Your task to perform on an android device: Open Google Chrome and click the shortcut for Amazon.com Image 0: 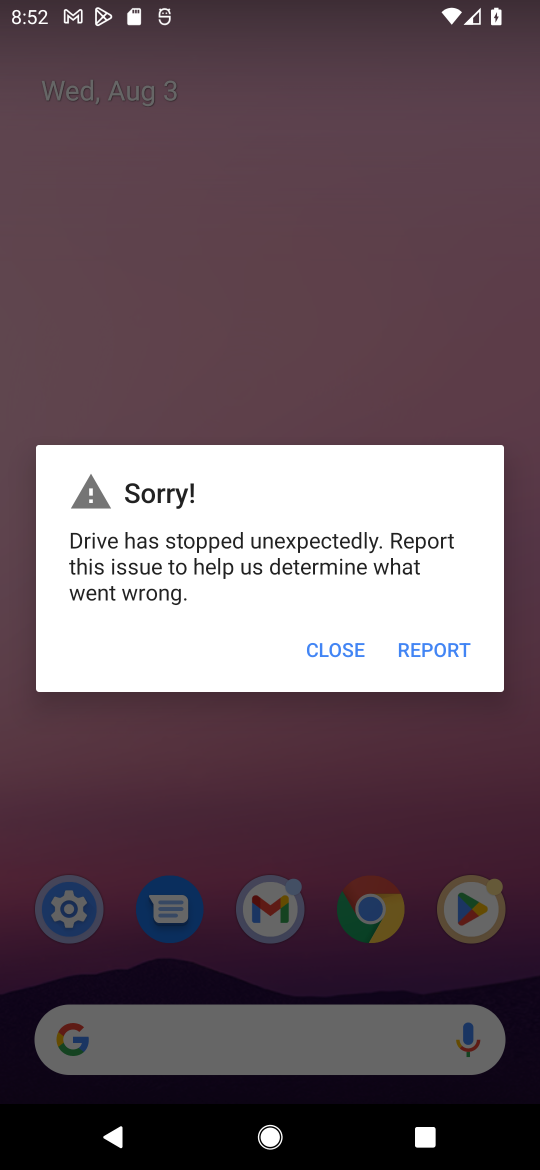
Step 0: press home button
Your task to perform on an android device: Open Google Chrome and click the shortcut for Amazon.com Image 1: 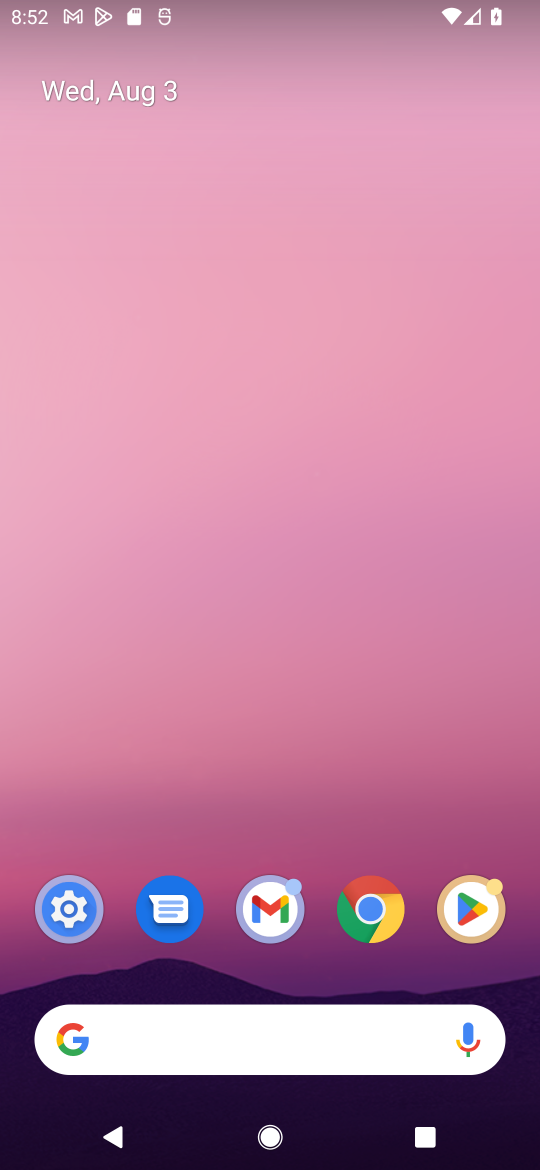
Step 1: drag from (424, 785) to (410, 248)
Your task to perform on an android device: Open Google Chrome and click the shortcut for Amazon.com Image 2: 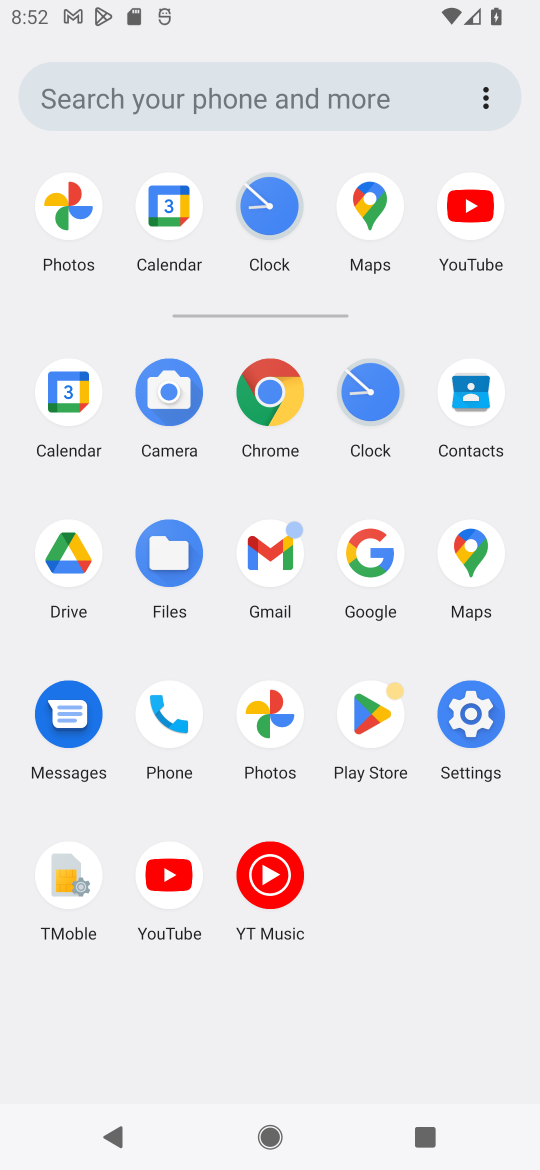
Step 2: click (277, 404)
Your task to perform on an android device: Open Google Chrome and click the shortcut for Amazon.com Image 3: 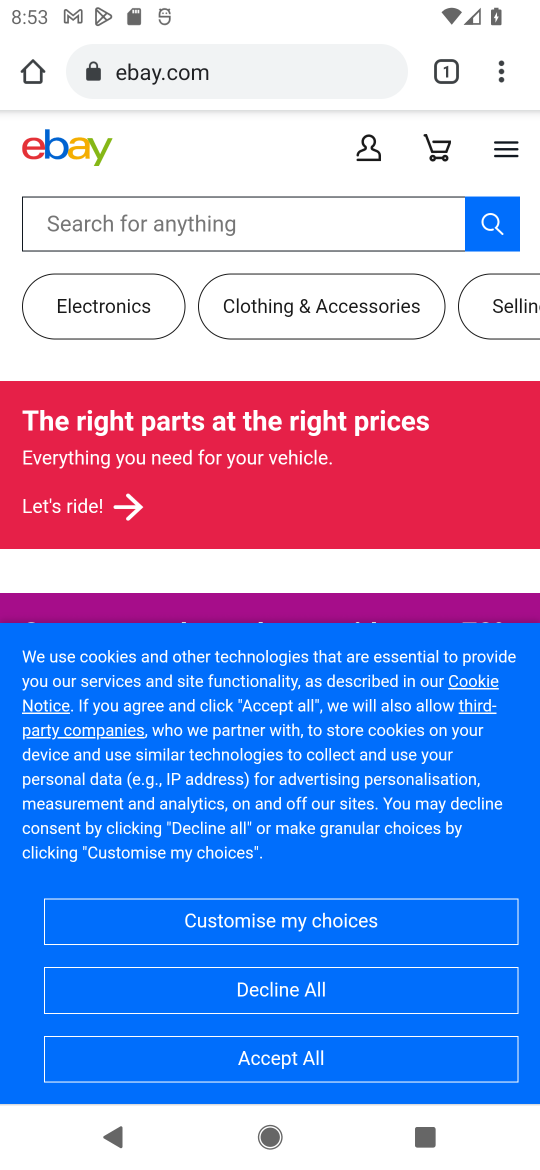
Step 3: press back button
Your task to perform on an android device: Open Google Chrome and click the shortcut for Amazon.com Image 4: 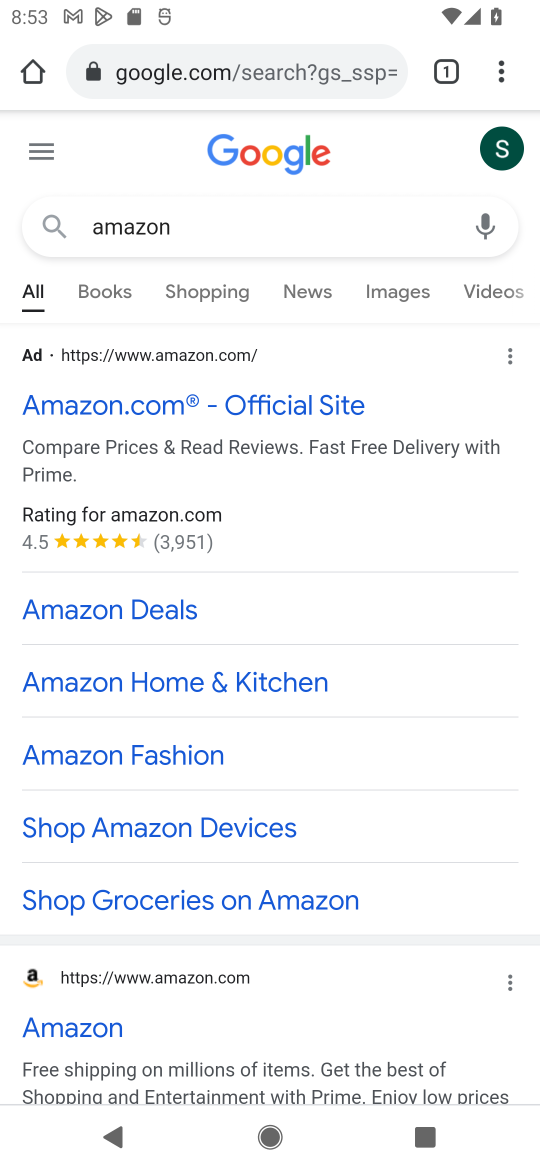
Step 4: press back button
Your task to perform on an android device: Open Google Chrome and click the shortcut for Amazon.com Image 5: 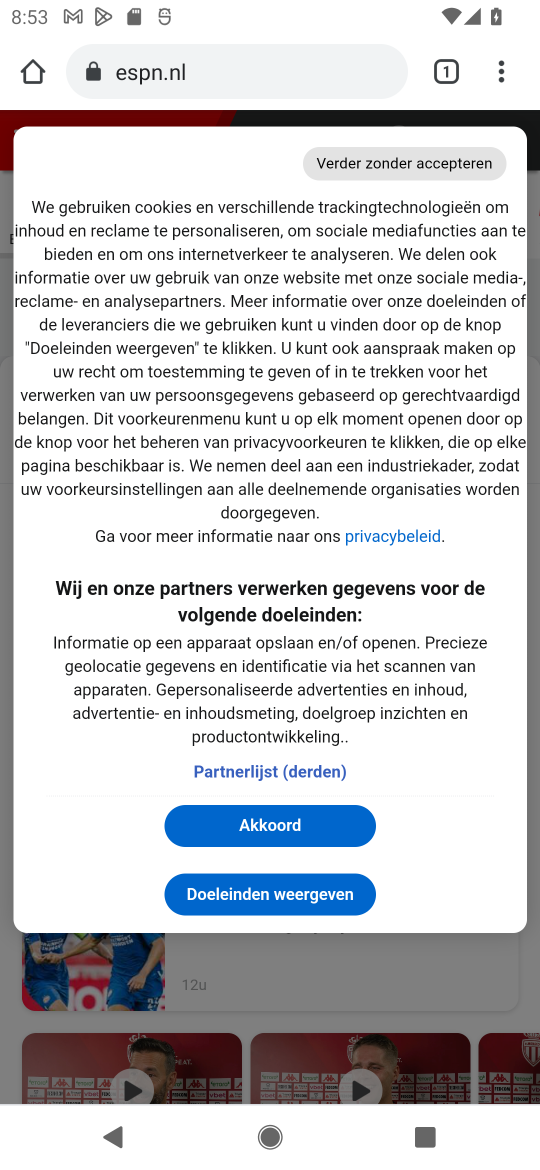
Step 5: press back button
Your task to perform on an android device: Open Google Chrome and click the shortcut for Amazon.com Image 6: 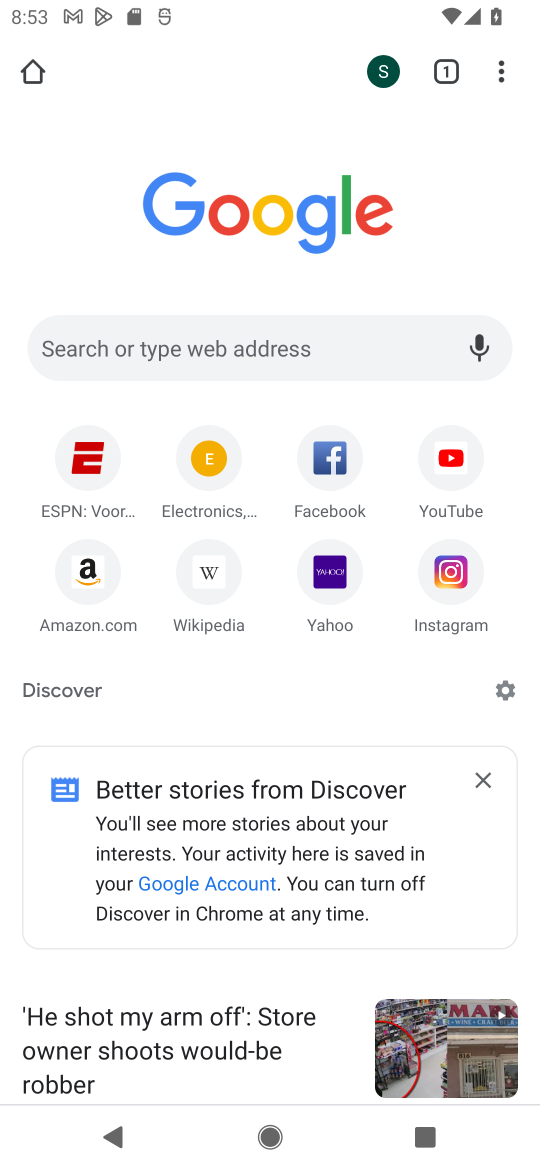
Step 6: click (93, 578)
Your task to perform on an android device: Open Google Chrome and click the shortcut for Amazon.com Image 7: 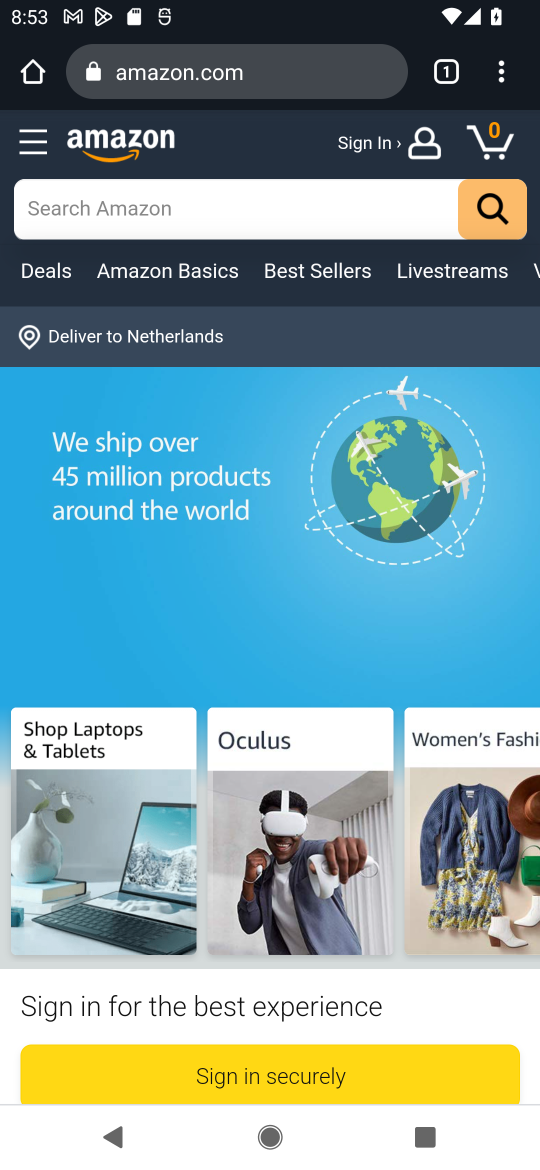
Step 7: task complete